Your task to perform on an android device: Search for Italian restaurants on Maps Image 0: 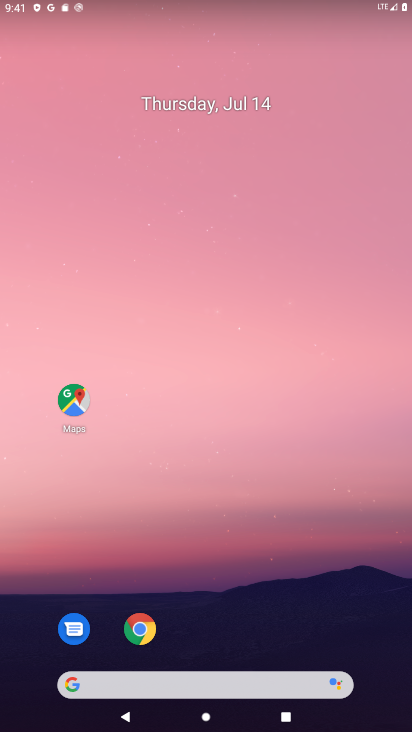
Step 0: click (56, 397)
Your task to perform on an android device: Search for Italian restaurants on Maps Image 1: 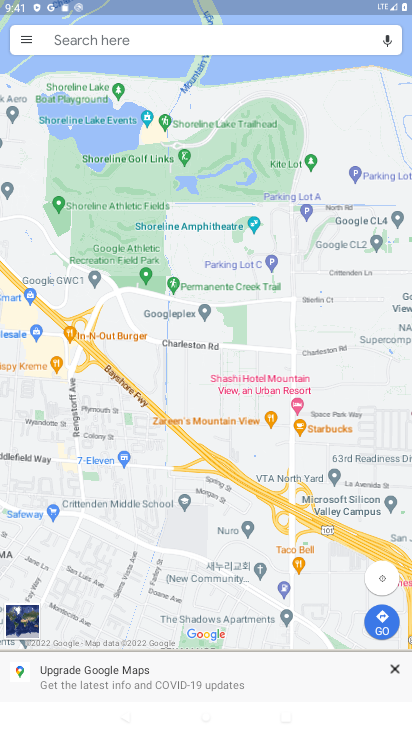
Step 1: click (220, 44)
Your task to perform on an android device: Search for Italian restaurants on Maps Image 2: 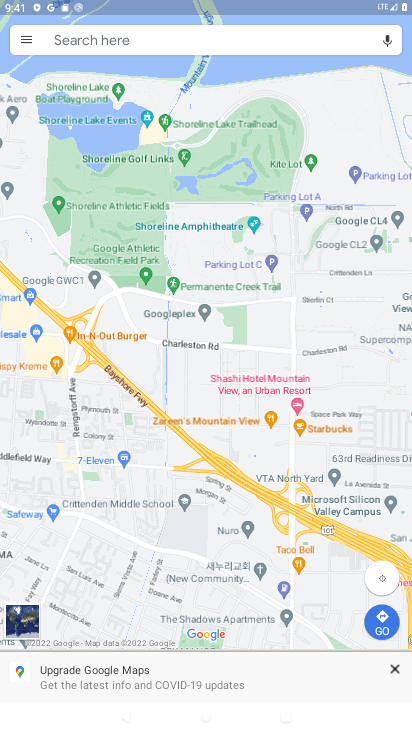
Step 2: click (176, 39)
Your task to perform on an android device: Search for Italian restaurants on Maps Image 3: 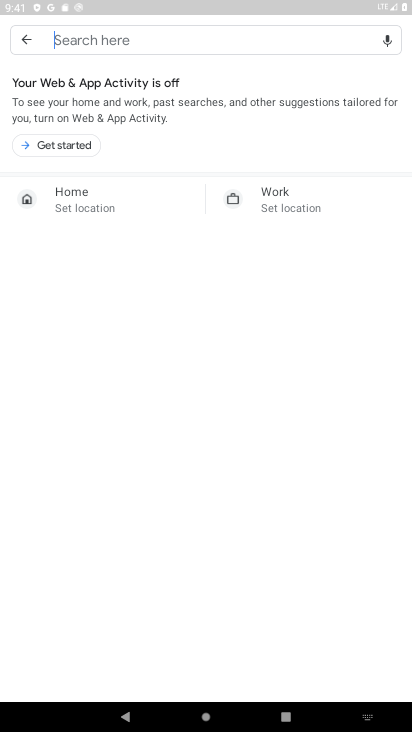
Step 3: click (128, 23)
Your task to perform on an android device: Search for Italian restaurants on Maps Image 4: 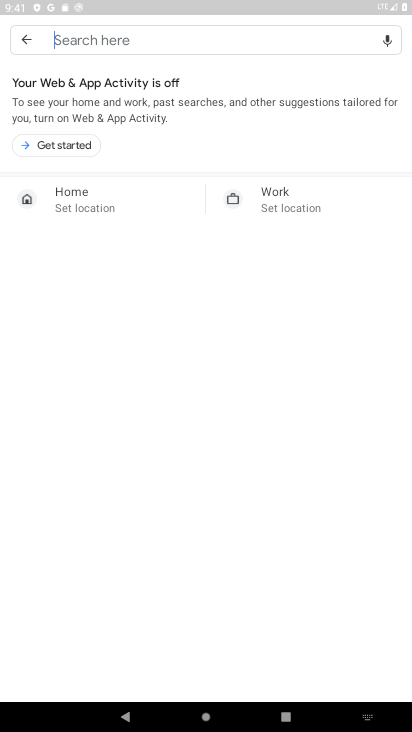
Step 4: type " Italian restaurants"
Your task to perform on an android device: Search for Italian restaurants on Maps Image 5: 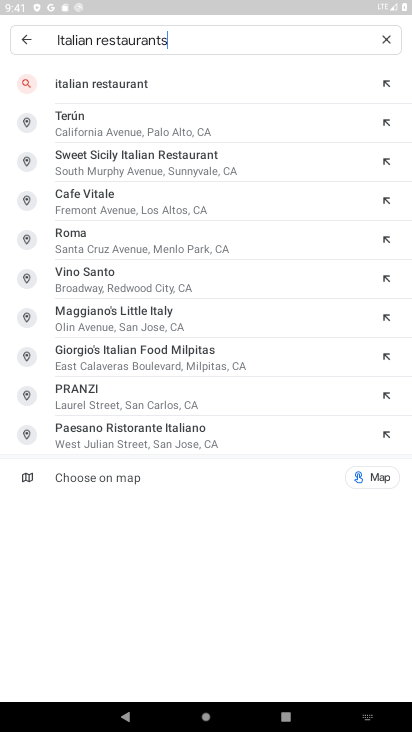
Step 5: click (69, 78)
Your task to perform on an android device: Search for Italian restaurants on Maps Image 6: 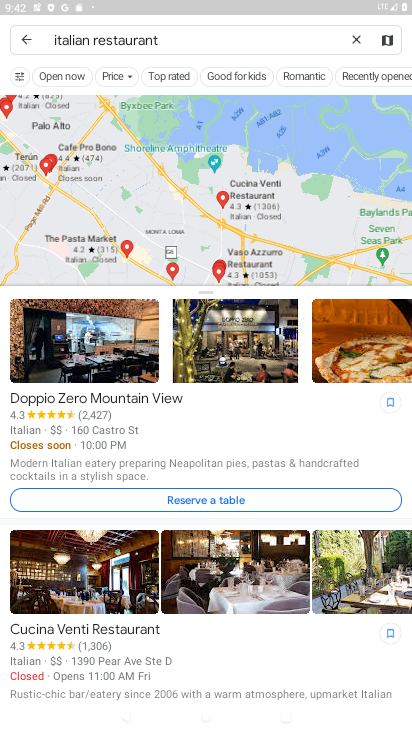
Step 6: task complete